Your task to perform on an android device: Is it going to rain this weekend? Image 0: 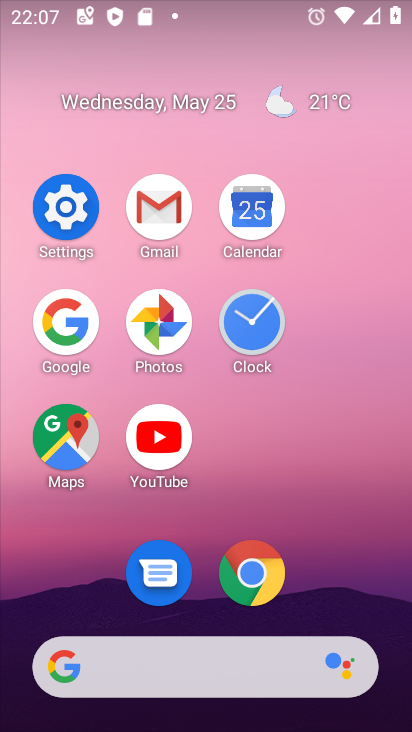
Step 0: click (70, 320)
Your task to perform on an android device: Is it going to rain this weekend? Image 1: 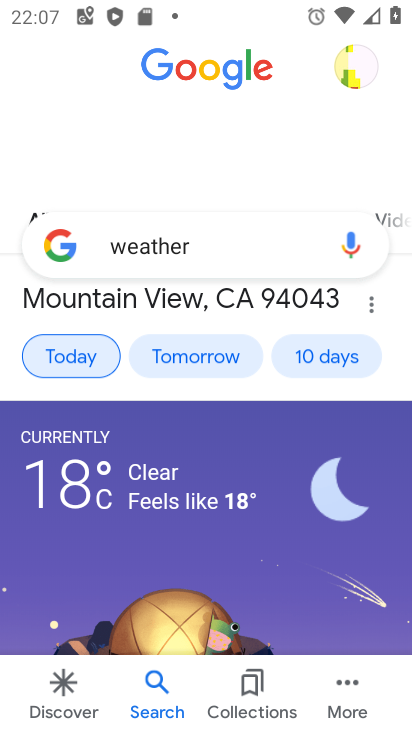
Step 1: click (313, 357)
Your task to perform on an android device: Is it going to rain this weekend? Image 2: 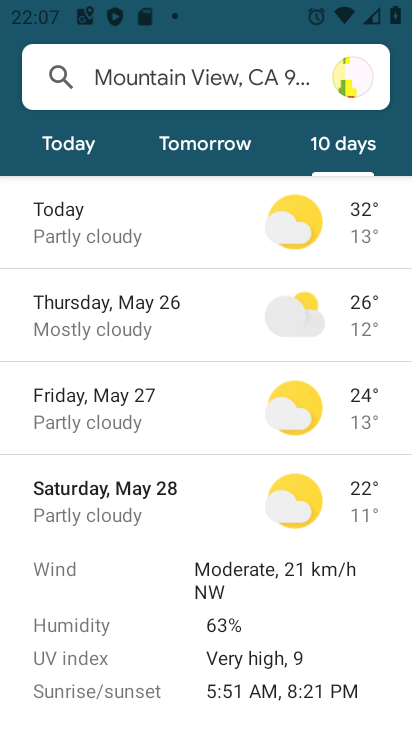
Step 2: task complete